Your task to perform on an android device: Search for Italian restaurants on Maps Image 0: 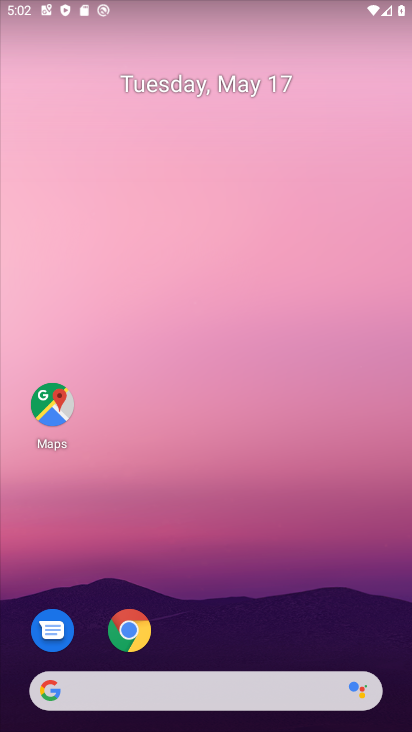
Step 0: click (34, 404)
Your task to perform on an android device: Search for Italian restaurants on Maps Image 1: 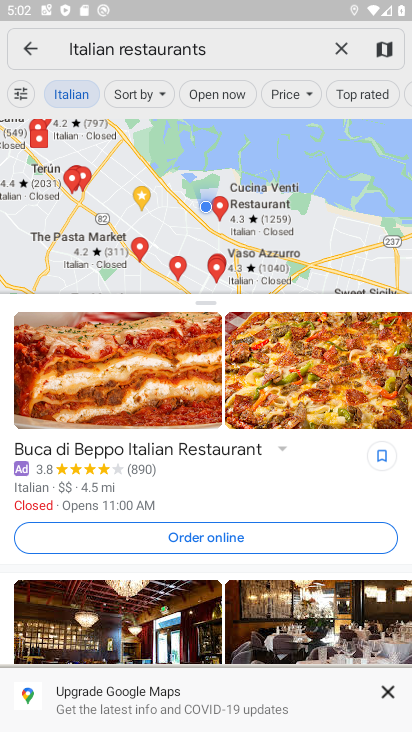
Step 1: task complete